Your task to perform on an android device: Toggle the flashlight Image 0: 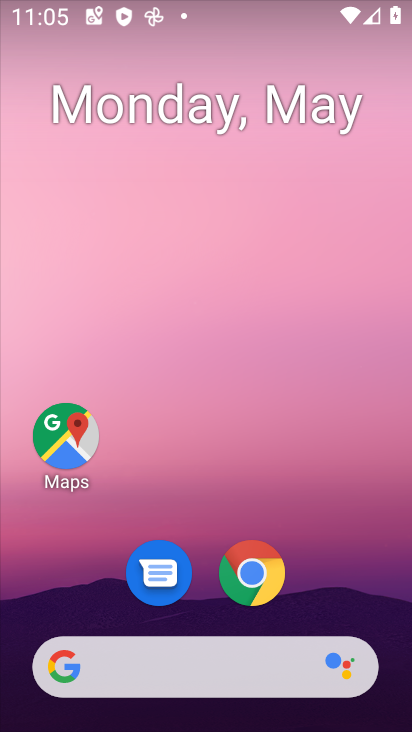
Step 0: click (343, 563)
Your task to perform on an android device: Toggle the flashlight Image 1: 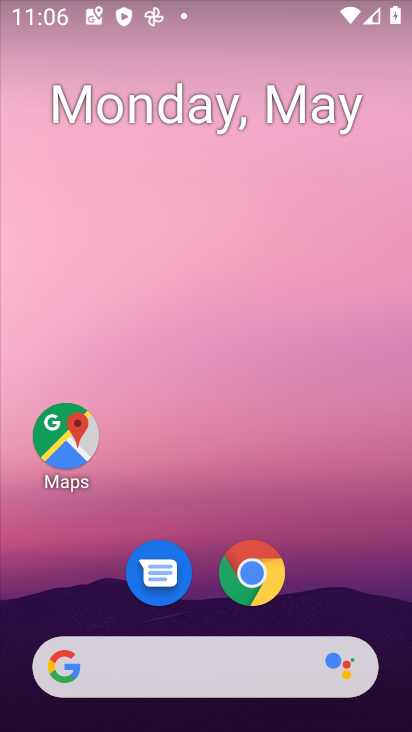
Step 1: drag from (343, 563) to (303, 63)
Your task to perform on an android device: Toggle the flashlight Image 2: 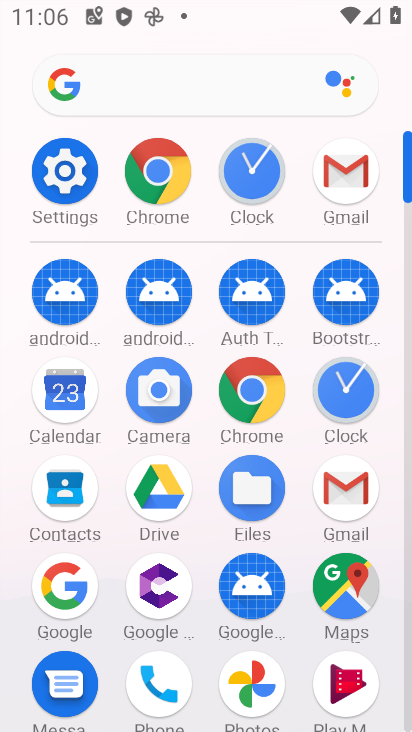
Step 2: click (69, 177)
Your task to perform on an android device: Toggle the flashlight Image 3: 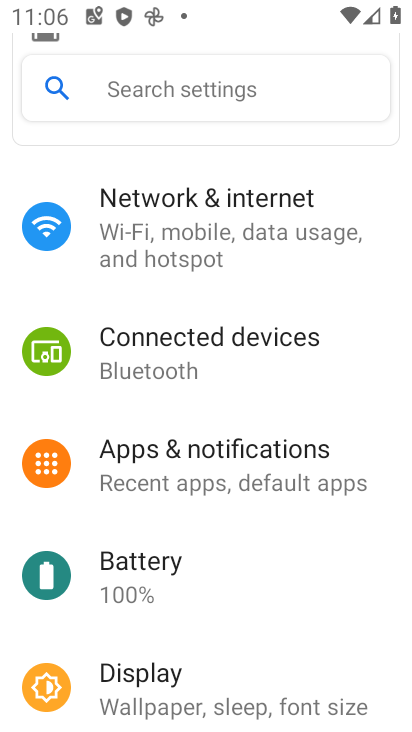
Step 3: click (201, 470)
Your task to perform on an android device: Toggle the flashlight Image 4: 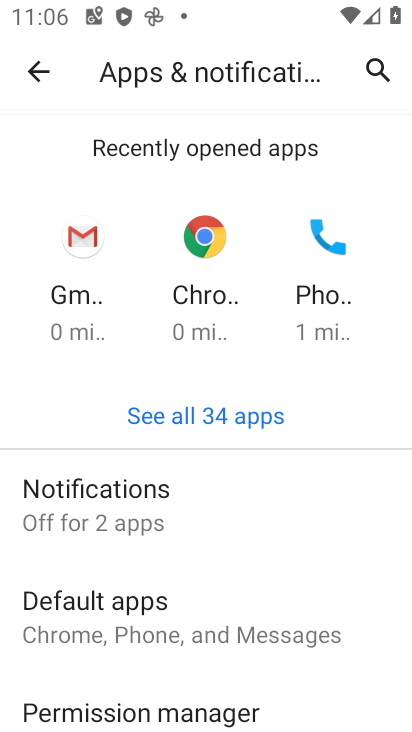
Step 4: task complete